Your task to perform on an android device: open app "LinkedIn" (install if not already installed), go to login, and select forgot password Image 0: 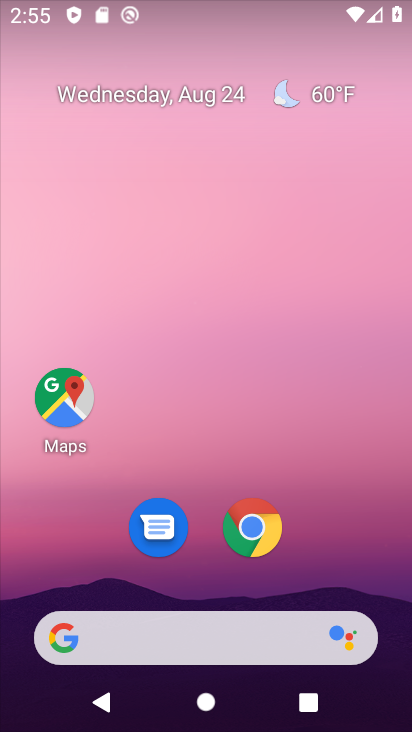
Step 0: drag from (322, 571) to (273, 2)
Your task to perform on an android device: open app "LinkedIn" (install if not already installed), go to login, and select forgot password Image 1: 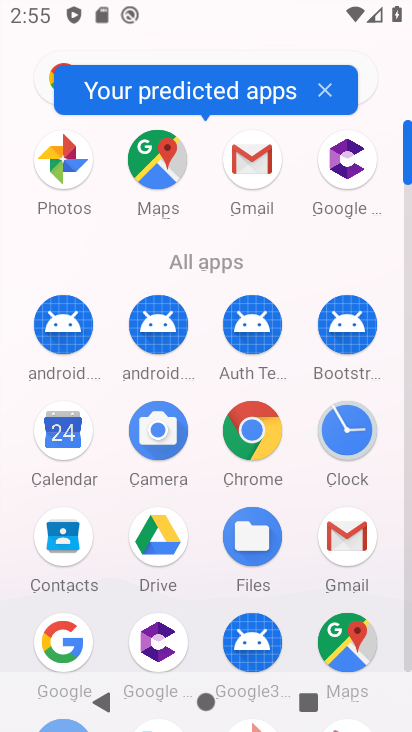
Step 1: click (326, 93)
Your task to perform on an android device: open app "LinkedIn" (install if not already installed), go to login, and select forgot password Image 2: 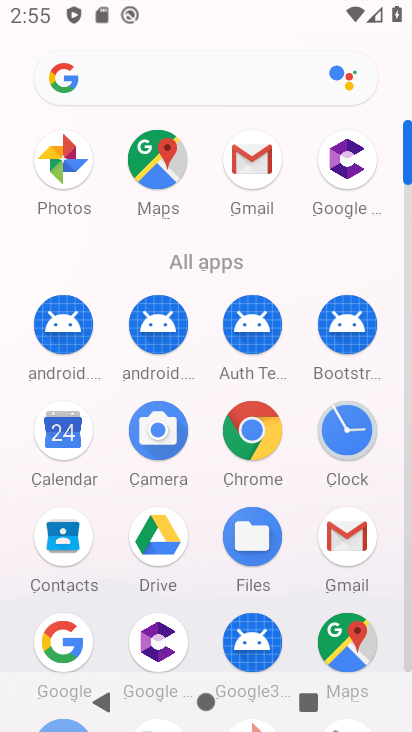
Step 2: click (408, 660)
Your task to perform on an android device: open app "LinkedIn" (install if not already installed), go to login, and select forgot password Image 3: 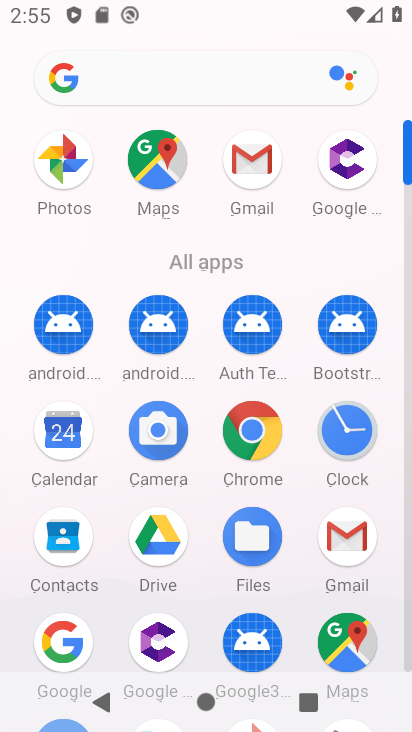
Step 3: click (408, 660)
Your task to perform on an android device: open app "LinkedIn" (install if not already installed), go to login, and select forgot password Image 4: 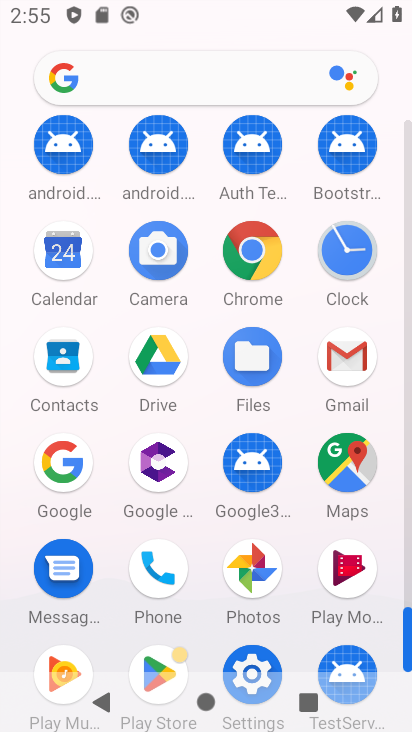
Step 4: click (167, 653)
Your task to perform on an android device: open app "LinkedIn" (install if not already installed), go to login, and select forgot password Image 5: 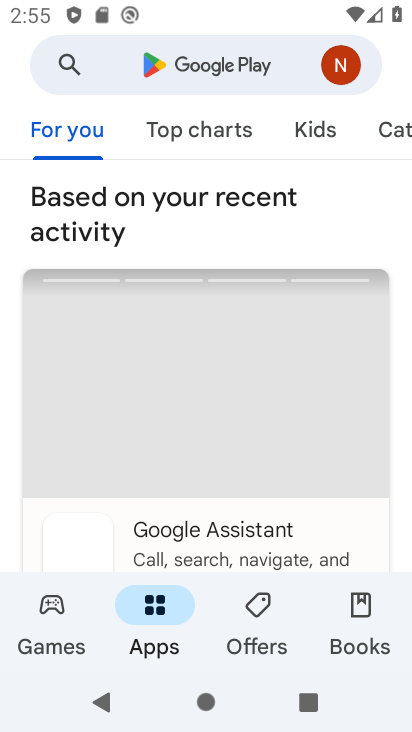
Step 5: click (274, 82)
Your task to perform on an android device: open app "LinkedIn" (install if not already installed), go to login, and select forgot password Image 6: 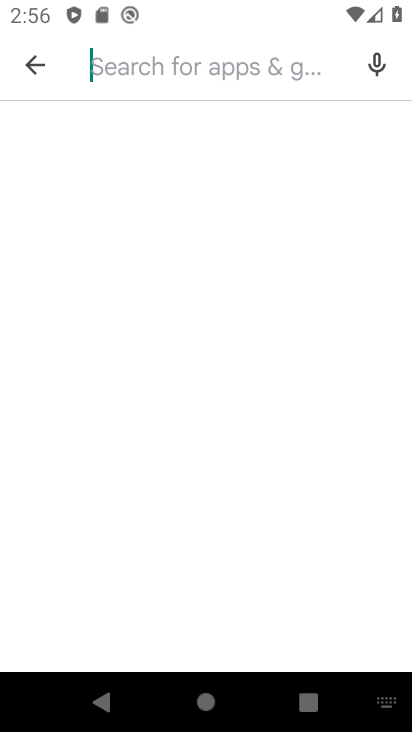
Step 6: type "linkedin"
Your task to perform on an android device: open app "LinkedIn" (install if not already installed), go to login, and select forgot password Image 7: 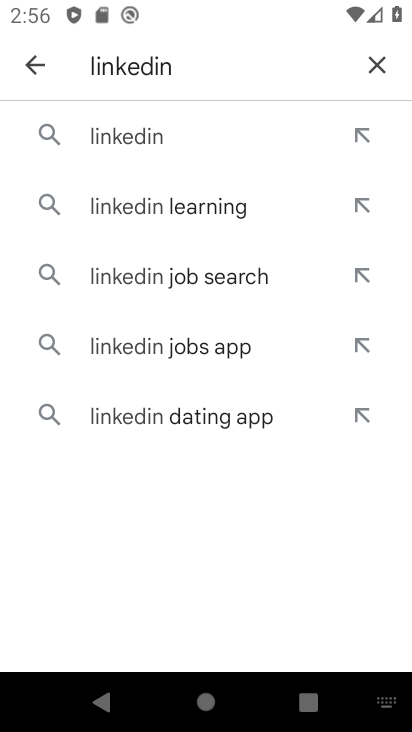
Step 7: click (127, 137)
Your task to perform on an android device: open app "LinkedIn" (install if not already installed), go to login, and select forgot password Image 8: 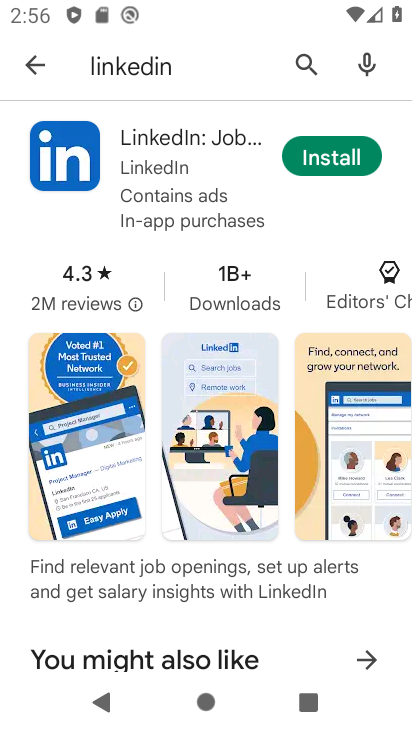
Step 8: click (329, 142)
Your task to perform on an android device: open app "LinkedIn" (install if not already installed), go to login, and select forgot password Image 9: 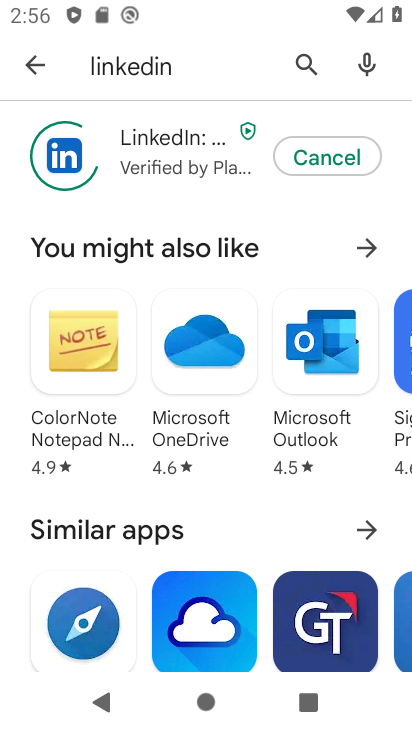
Step 9: task complete